Your task to perform on an android device: Go to Yahoo.com Image 0: 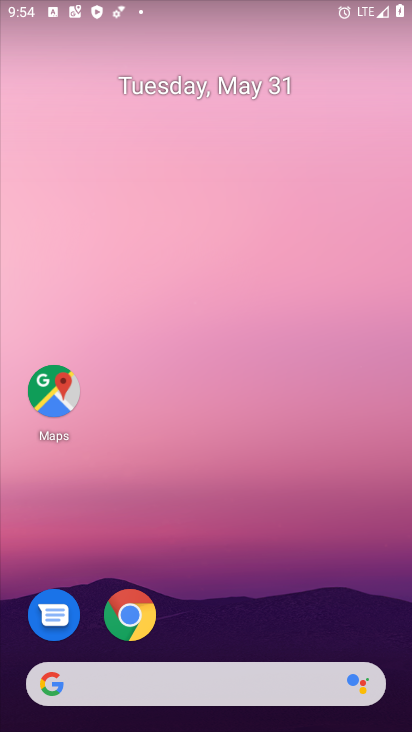
Step 0: click (132, 615)
Your task to perform on an android device: Go to Yahoo.com Image 1: 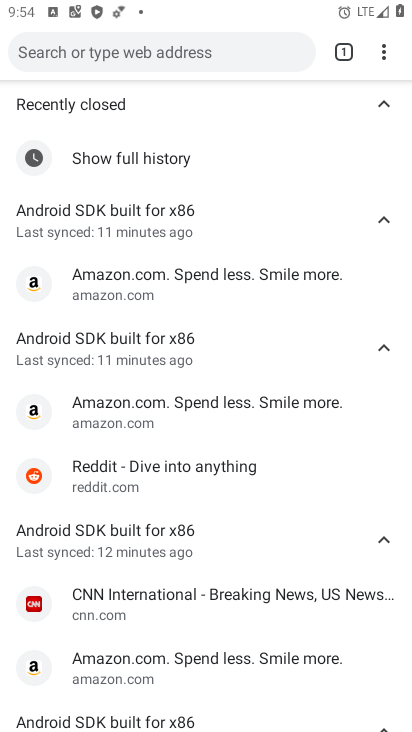
Step 1: click (226, 45)
Your task to perform on an android device: Go to Yahoo.com Image 2: 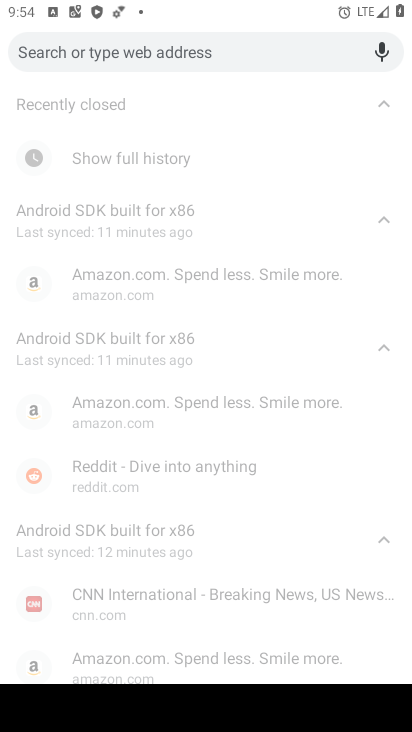
Step 2: type "yahoo.com"
Your task to perform on an android device: Go to Yahoo.com Image 3: 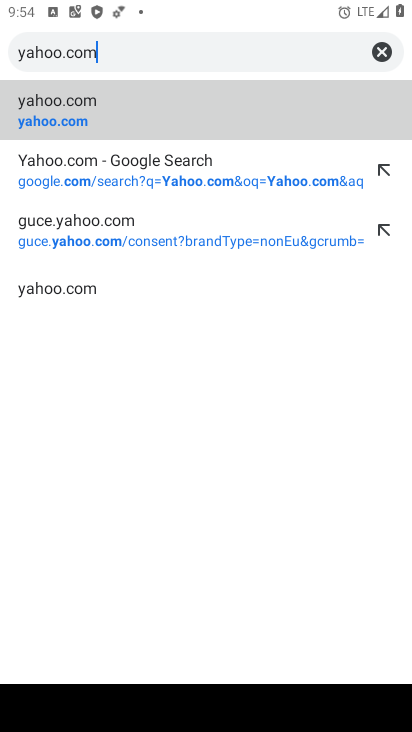
Step 3: click (59, 118)
Your task to perform on an android device: Go to Yahoo.com Image 4: 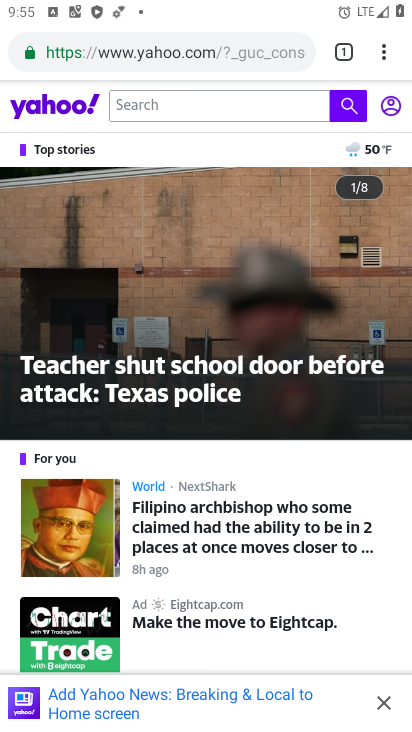
Step 4: task complete